Your task to perform on an android device: see sites visited before in the chrome app Image 0: 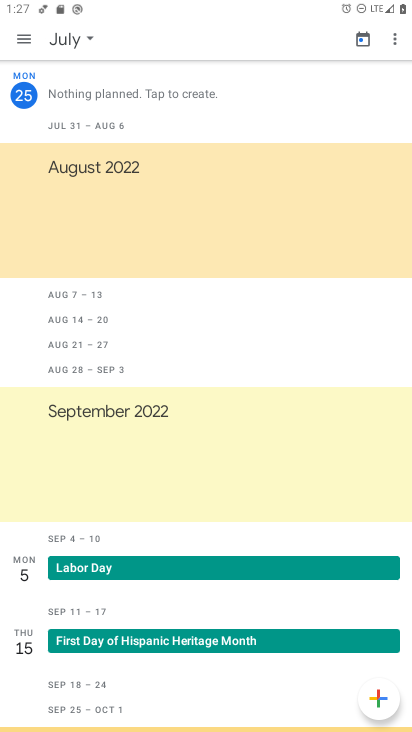
Step 0: press home button
Your task to perform on an android device: see sites visited before in the chrome app Image 1: 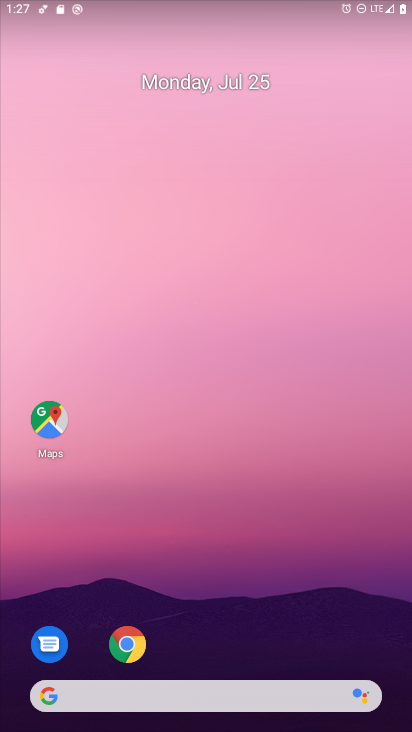
Step 1: click (128, 647)
Your task to perform on an android device: see sites visited before in the chrome app Image 2: 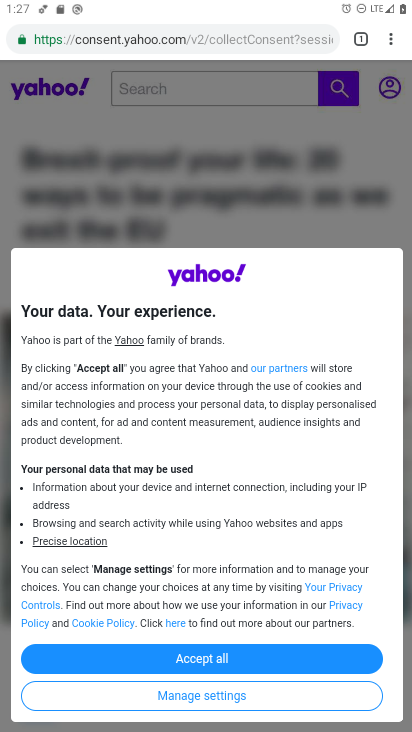
Step 2: click (383, 47)
Your task to perform on an android device: see sites visited before in the chrome app Image 3: 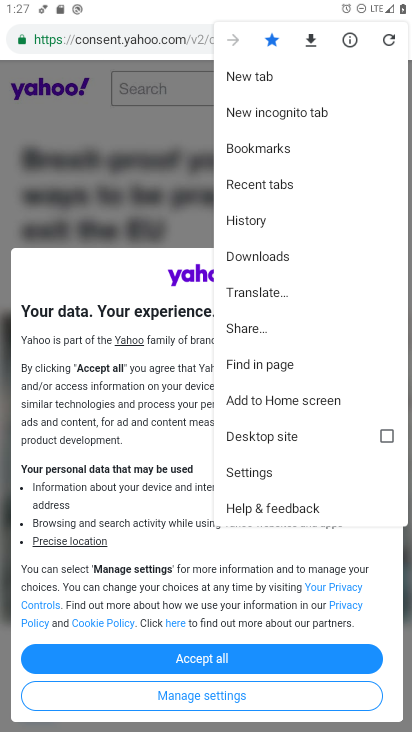
Step 3: click (253, 219)
Your task to perform on an android device: see sites visited before in the chrome app Image 4: 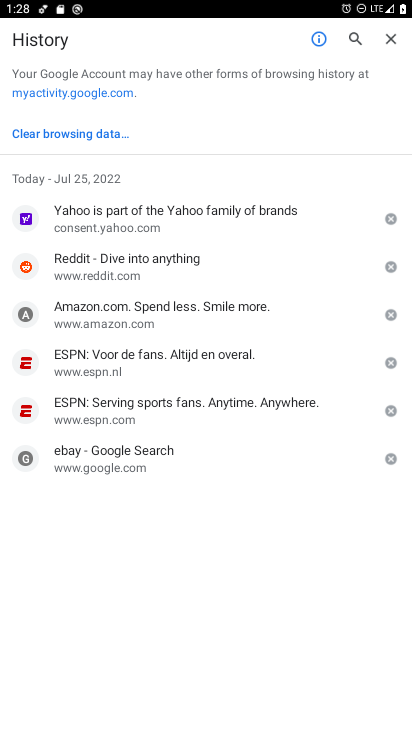
Step 4: task complete